Your task to perform on an android device: Show me popular videos on Youtube Image 0: 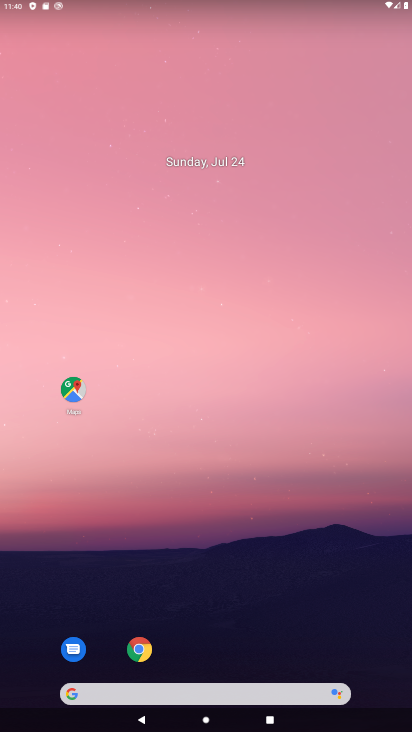
Step 0: drag from (225, 614) to (160, 76)
Your task to perform on an android device: Show me popular videos on Youtube Image 1: 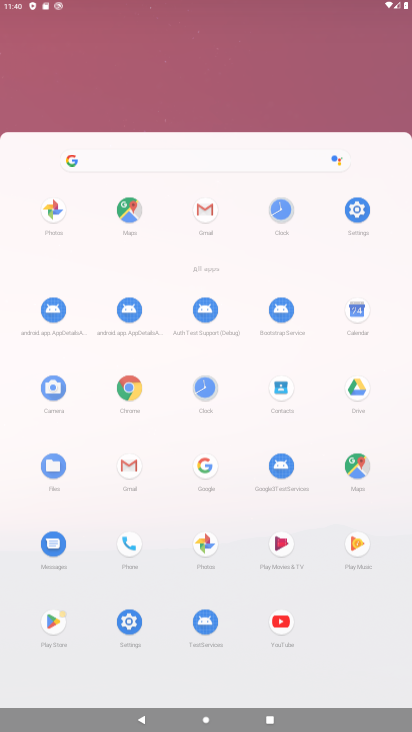
Step 1: drag from (122, 394) to (108, 172)
Your task to perform on an android device: Show me popular videos on Youtube Image 2: 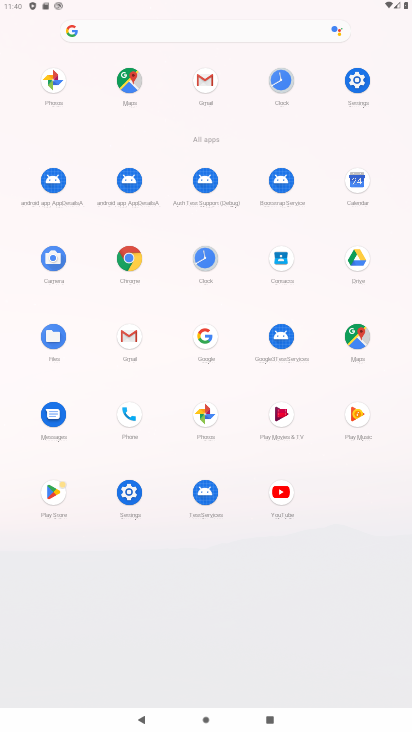
Step 2: click (280, 504)
Your task to perform on an android device: Show me popular videos on Youtube Image 3: 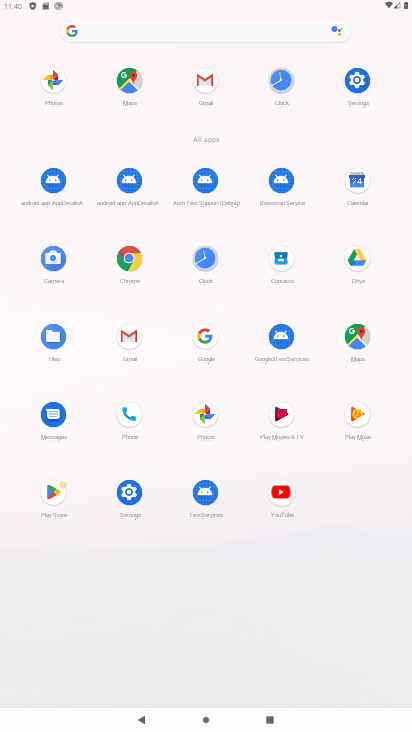
Step 3: click (280, 504)
Your task to perform on an android device: Show me popular videos on Youtube Image 4: 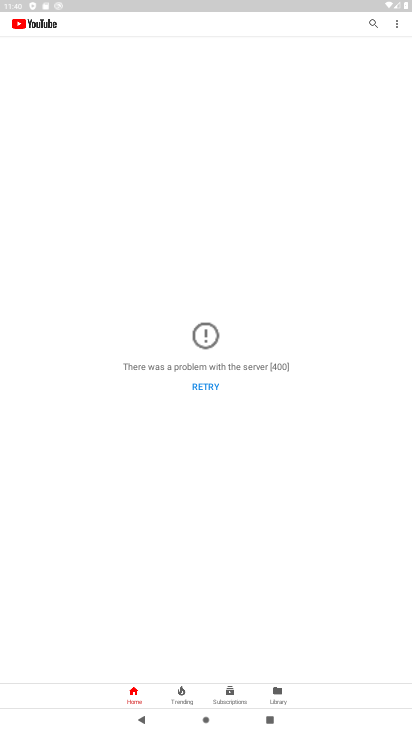
Step 4: task complete